Your task to perform on an android device: Show the shopping cart on target. Image 0: 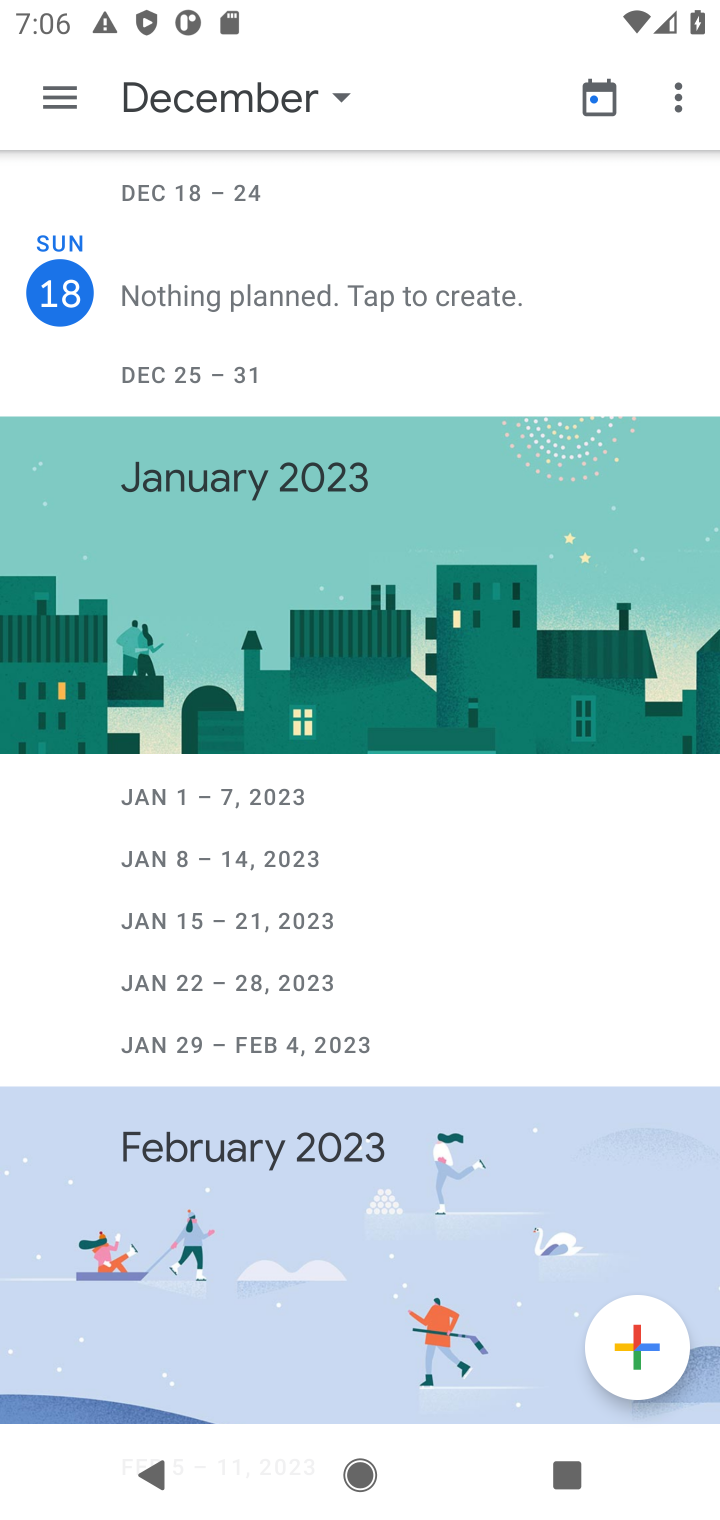
Step 0: press home button
Your task to perform on an android device: Show the shopping cart on target. Image 1: 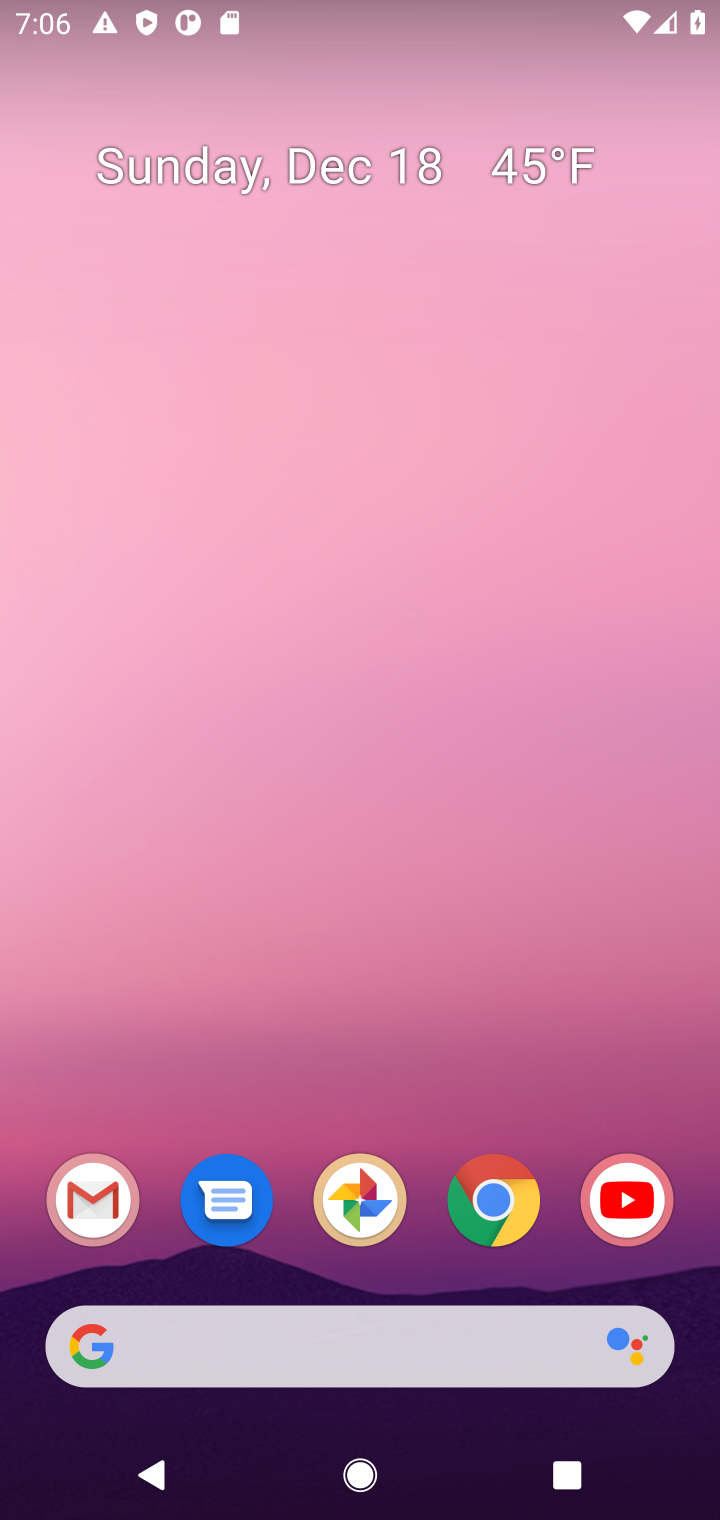
Step 1: click (496, 1217)
Your task to perform on an android device: Show the shopping cart on target. Image 2: 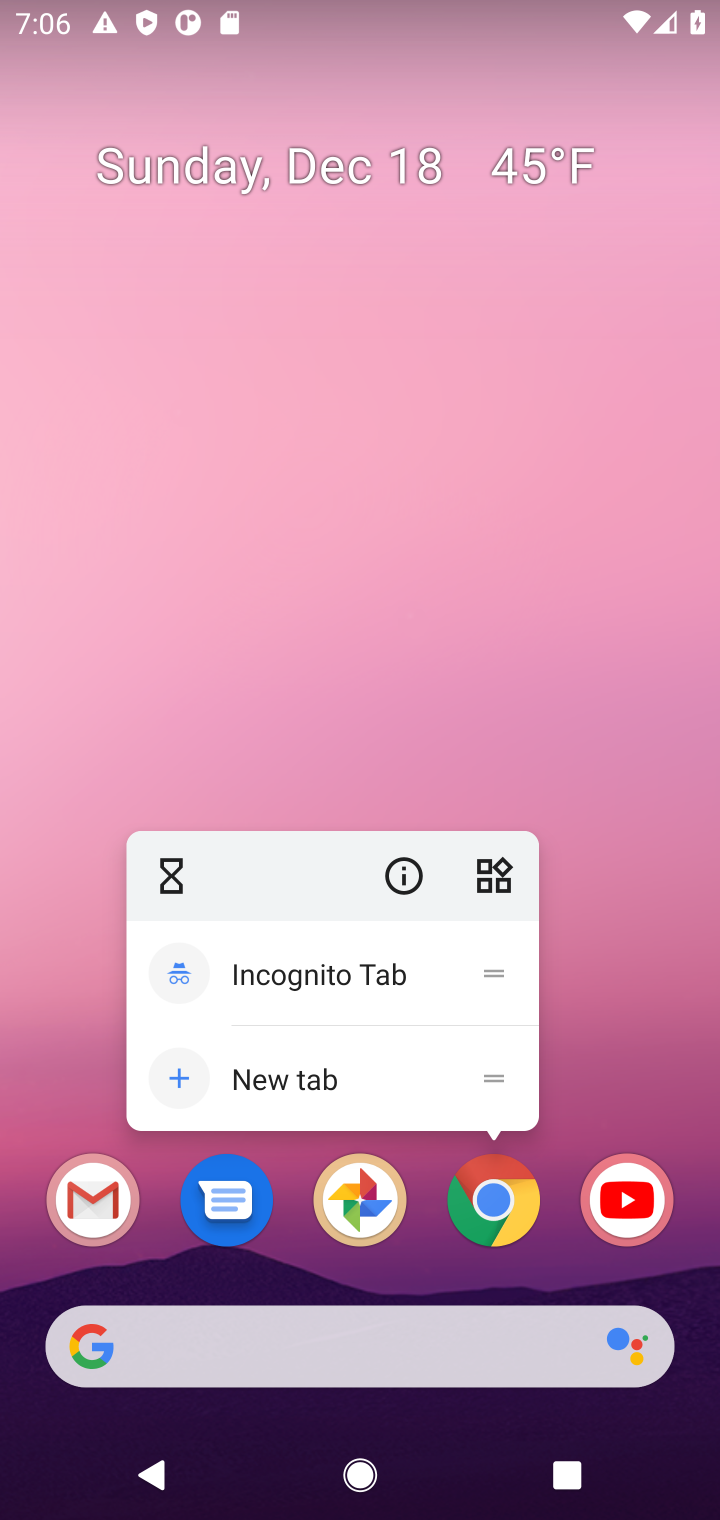
Step 2: click (498, 1217)
Your task to perform on an android device: Show the shopping cart on target. Image 3: 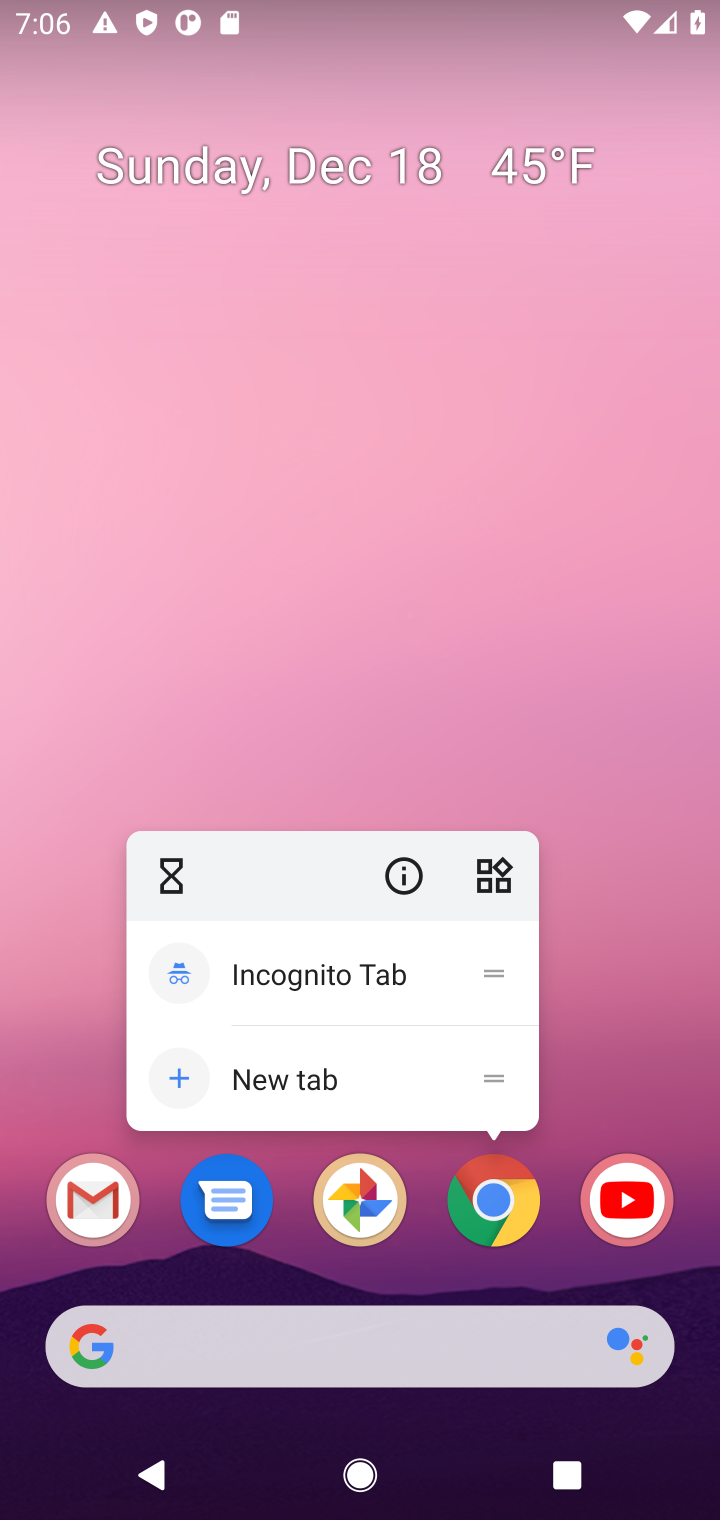
Step 3: click (506, 1199)
Your task to perform on an android device: Show the shopping cart on target. Image 4: 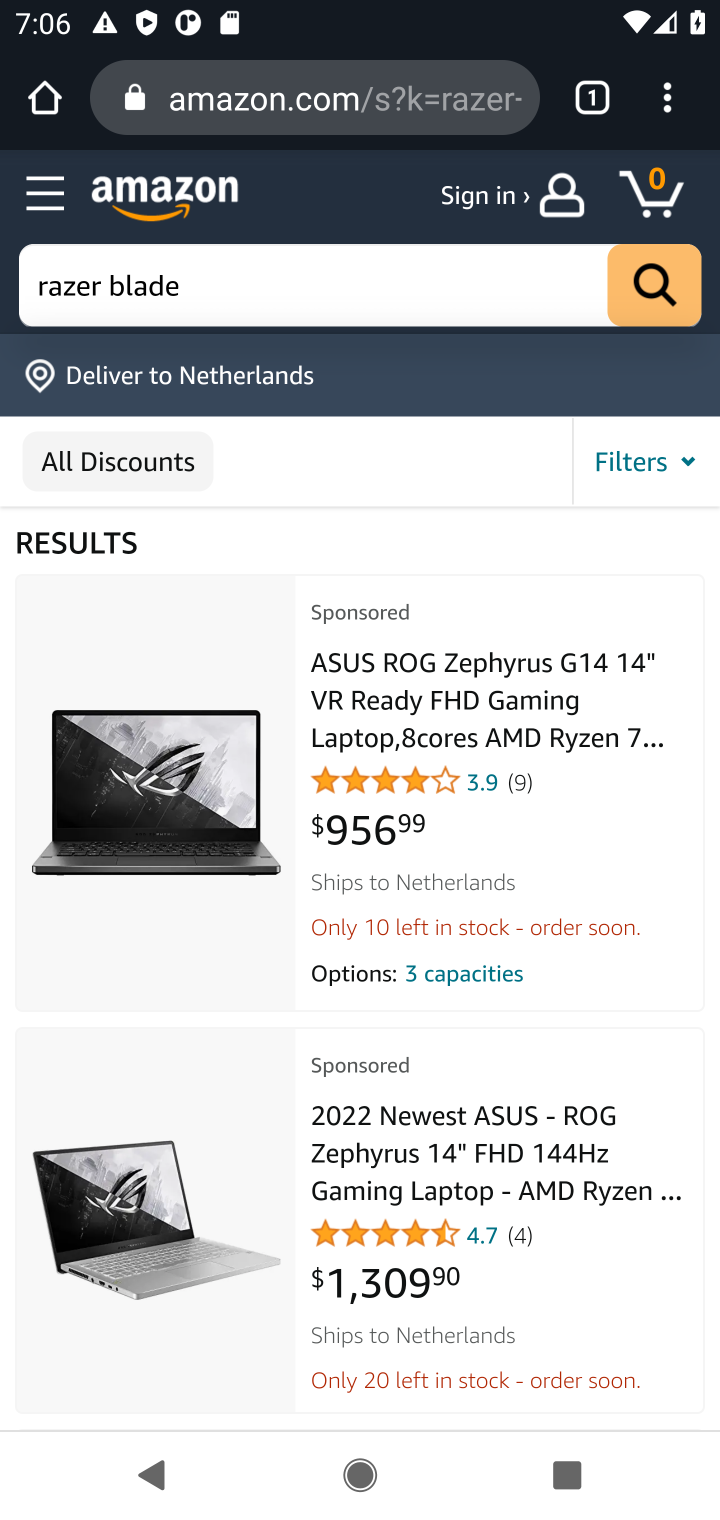
Step 4: click (253, 106)
Your task to perform on an android device: Show the shopping cart on target. Image 5: 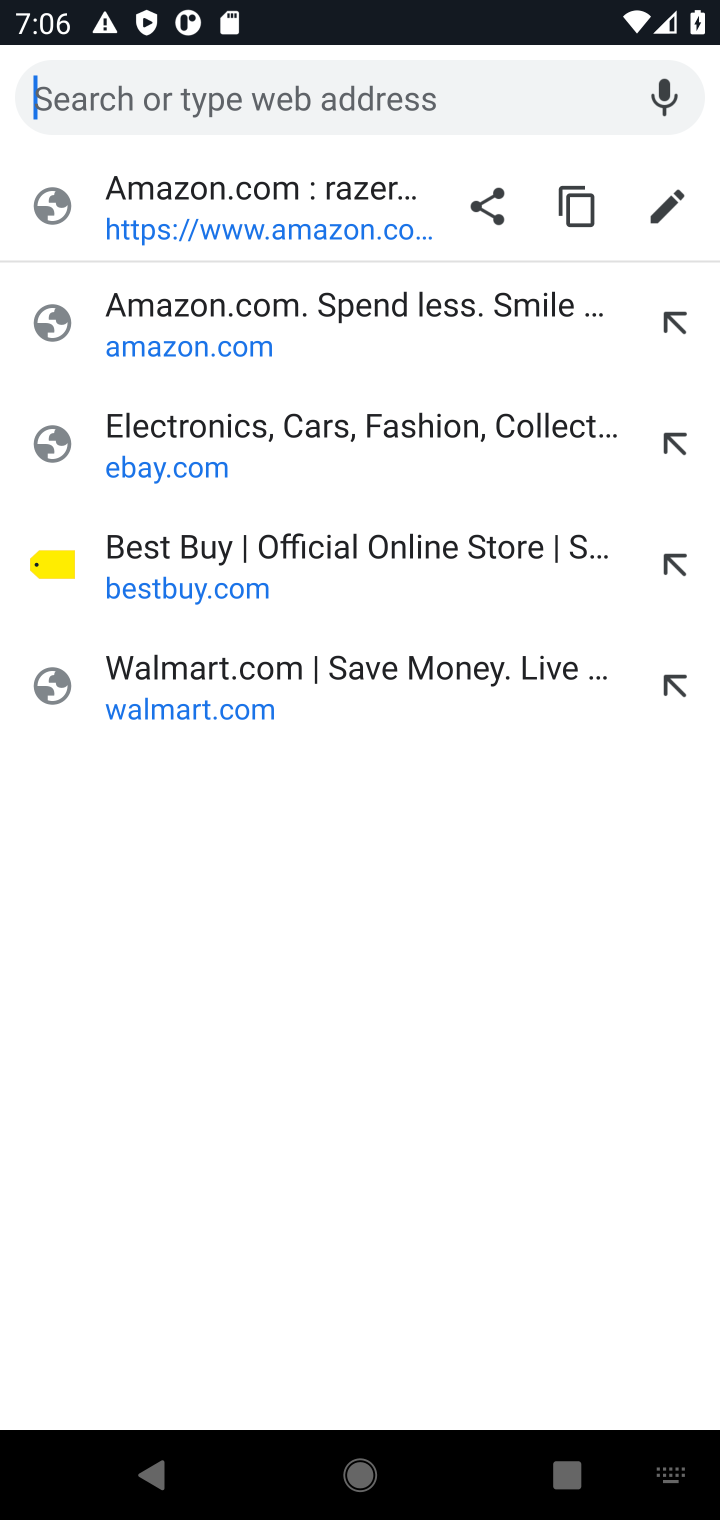
Step 5: type "target.com"
Your task to perform on an android device: Show the shopping cart on target. Image 6: 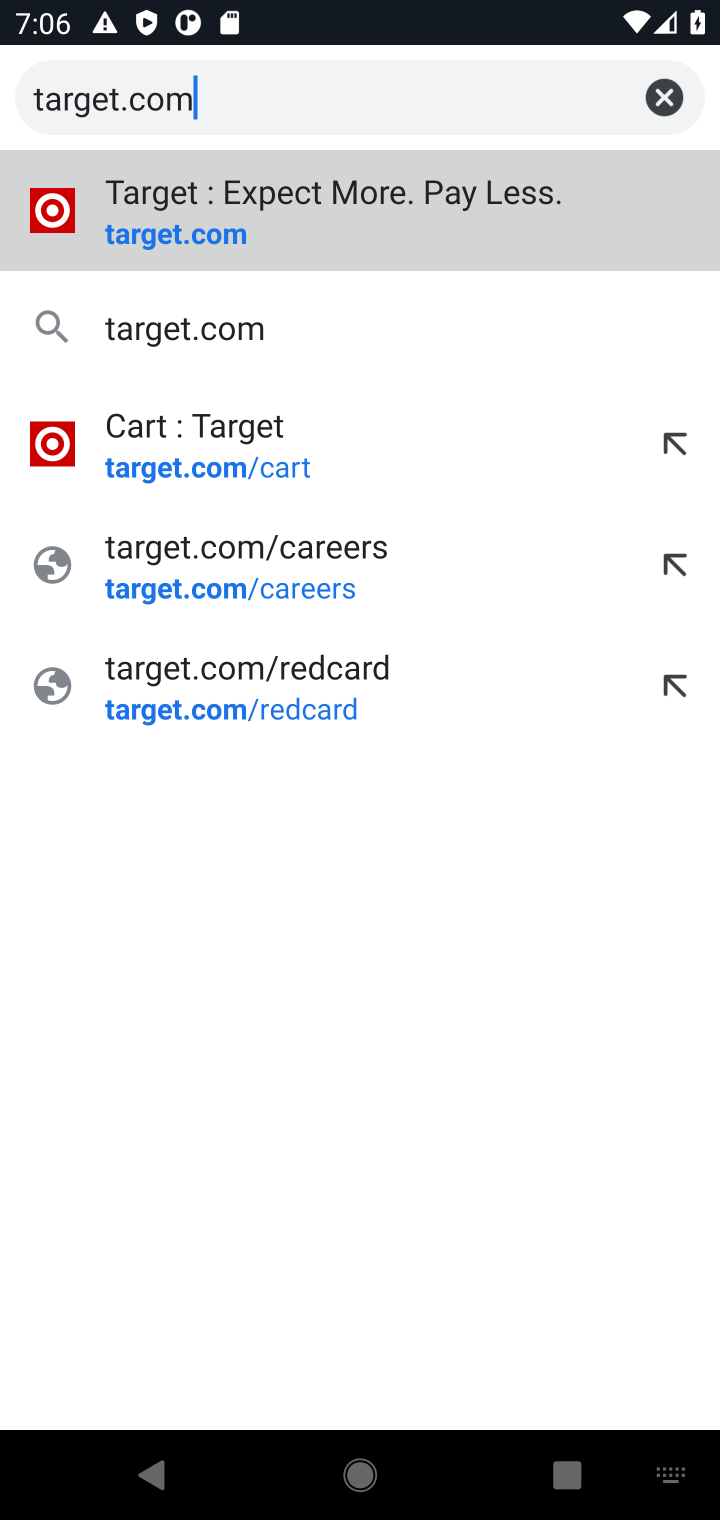
Step 6: click (169, 222)
Your task to perform on an android device: Show the shopping cart on target. Image 7: 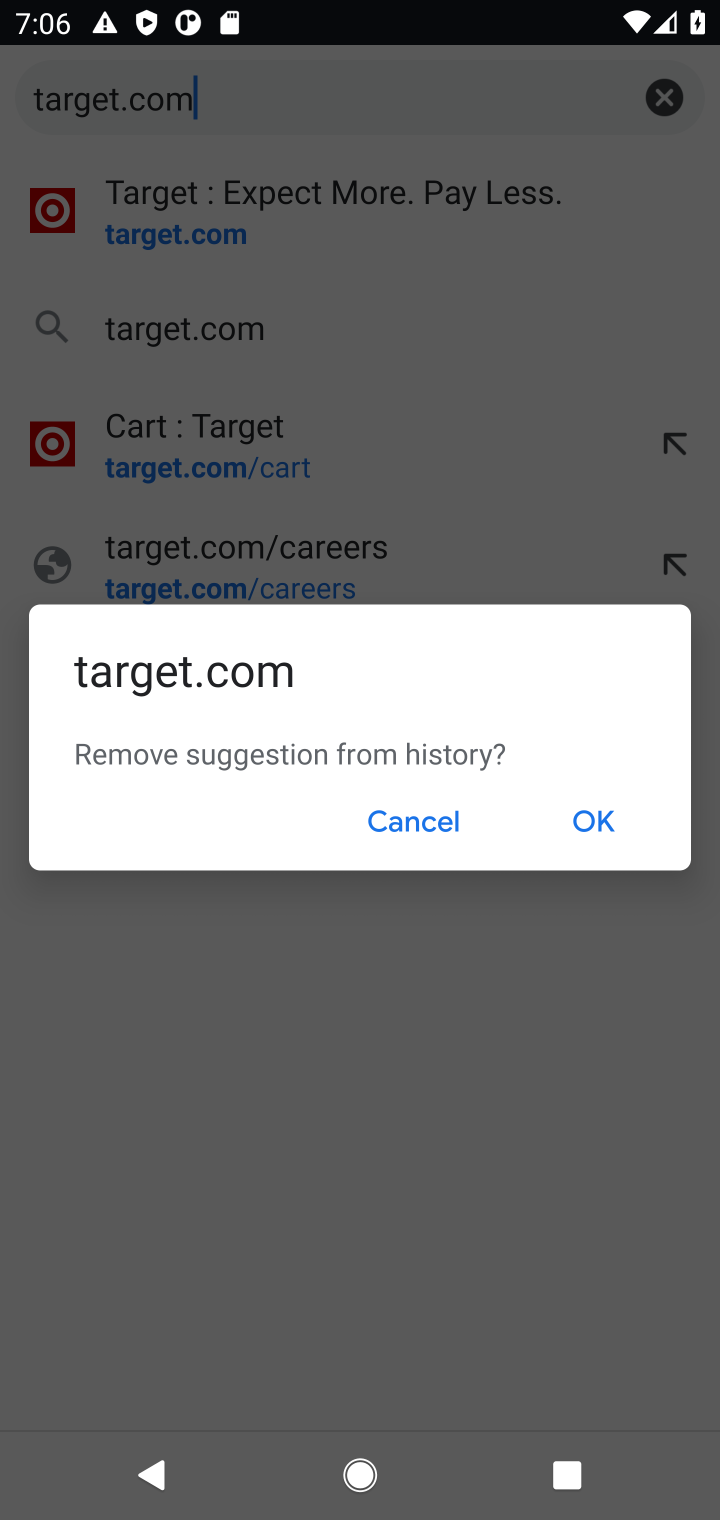
Step 7: click (158, 236)
Your task to perform on an android device: Show the shopping cart on target. Image 8: 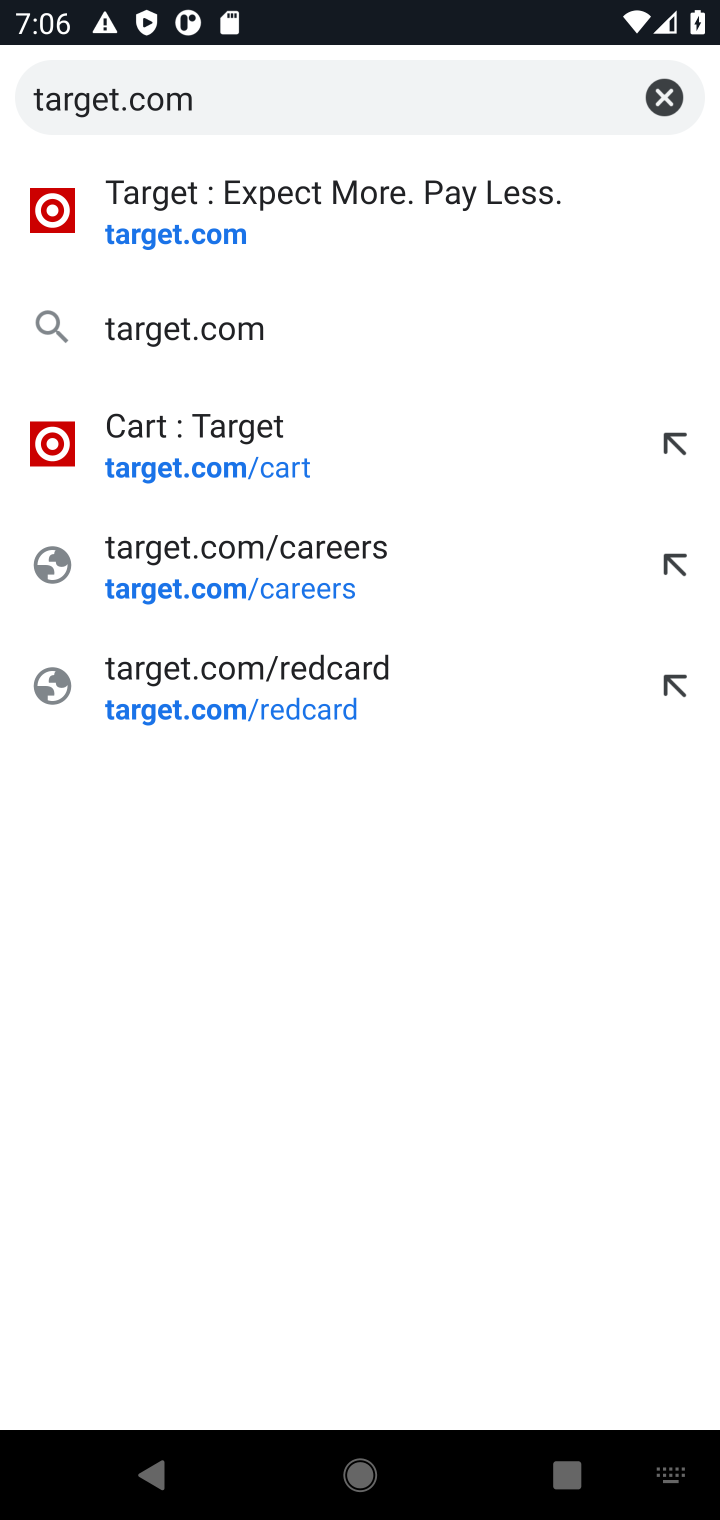
Step 8: click (154, 236)
Your task to perform on an android device: Show the shopping cart on target. Image 9: 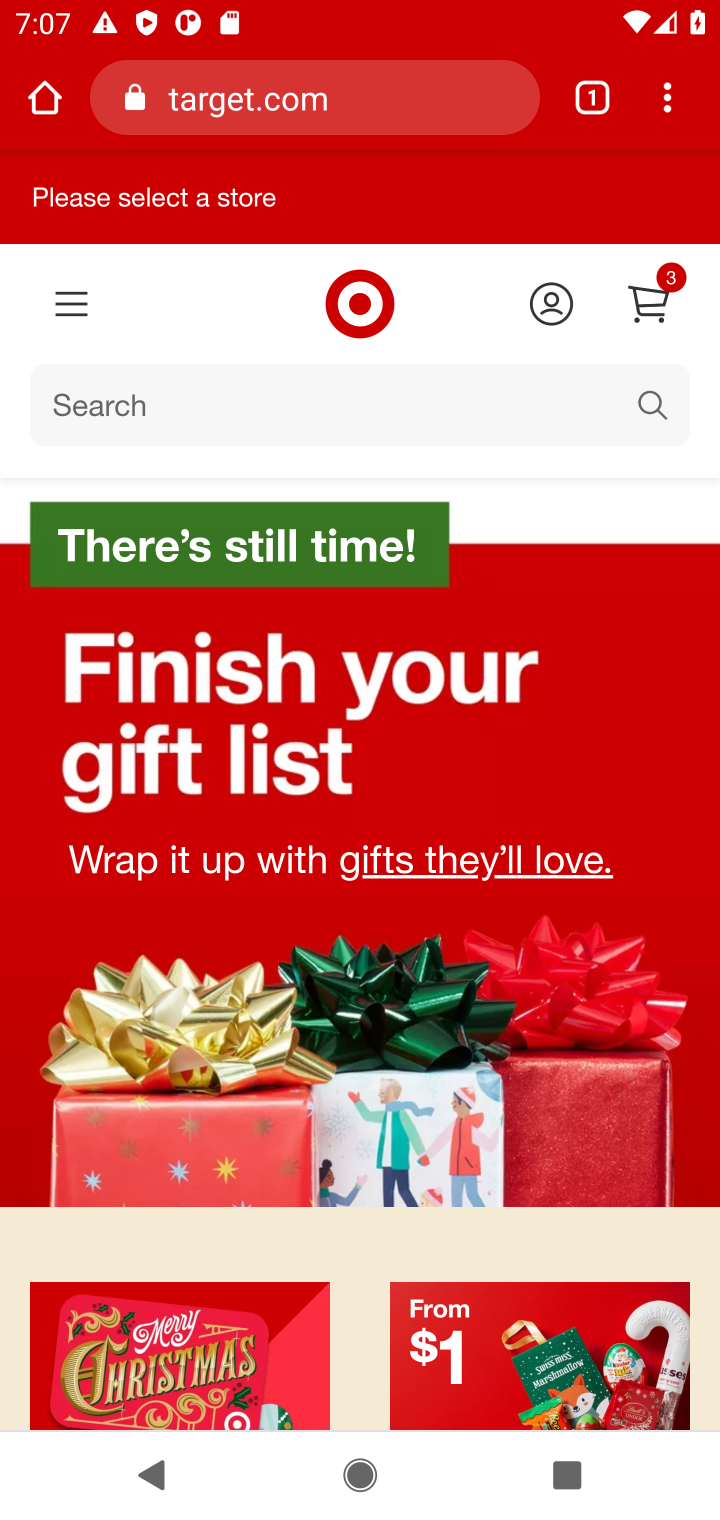
Step 9: click (640, 320)
Your task to perform on an android device: Show the shopping cart on target. Image 10: 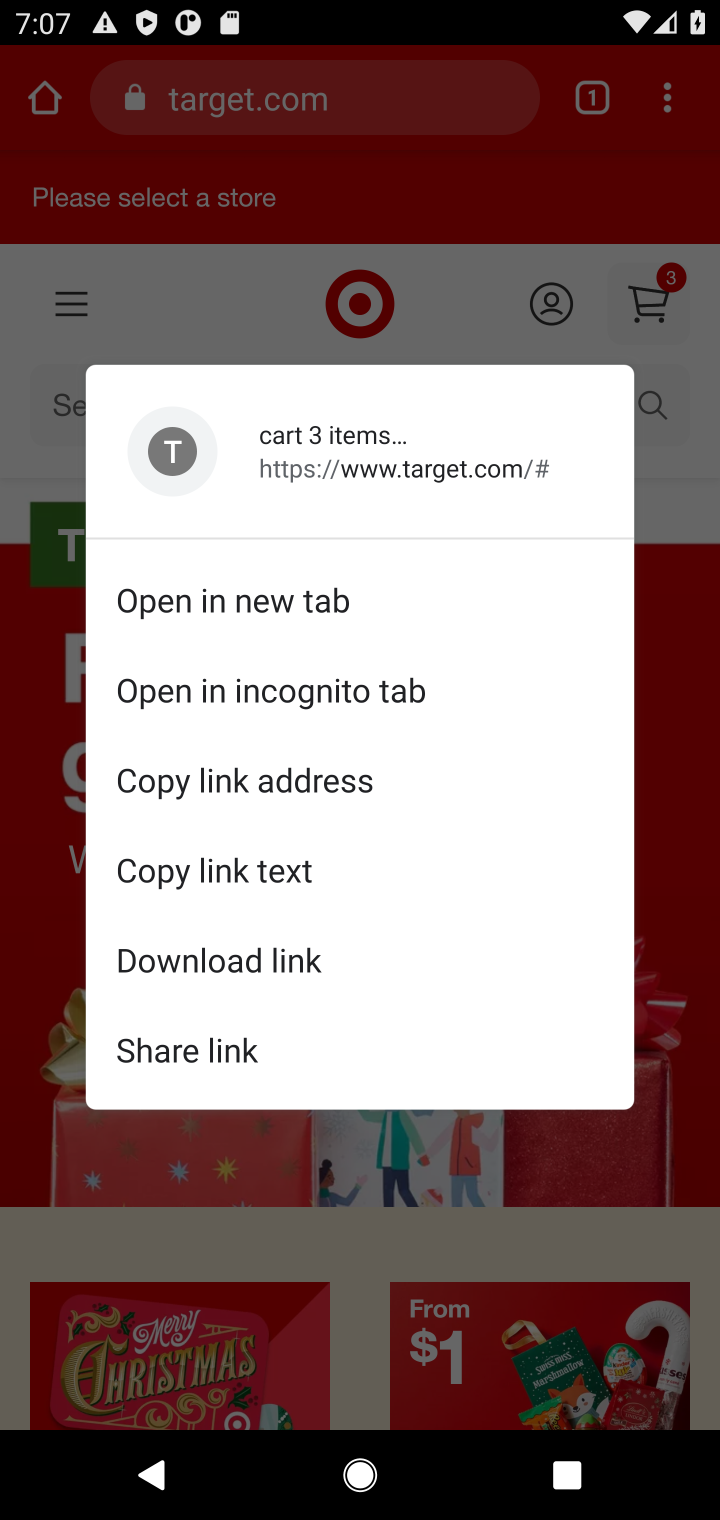
Step 10: click (640, 320)
Your task to perform on an android device: Show the shopping cart on target. Image 11: 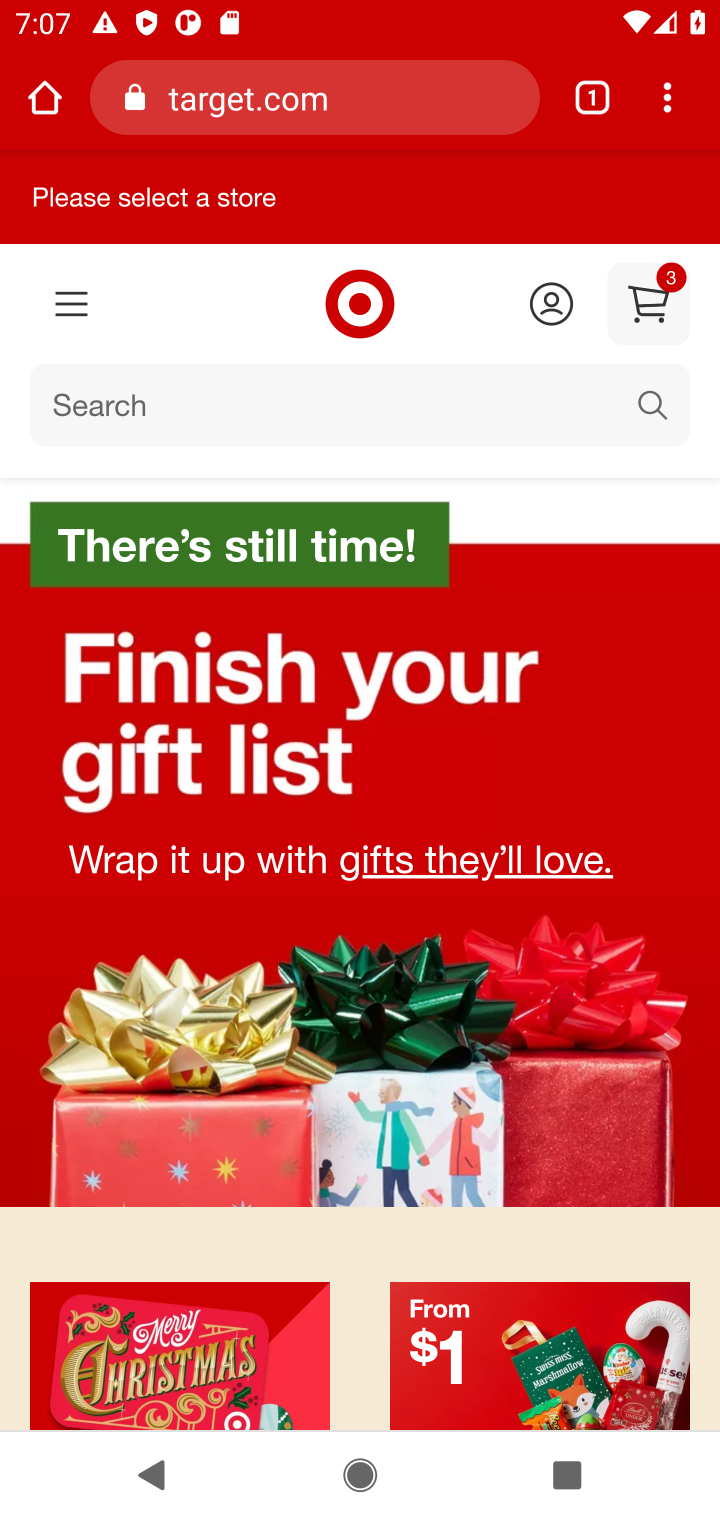
Step 11: click (646, 295)
Your task to perform on an android device: Show the shopping cart on target. Image 12: 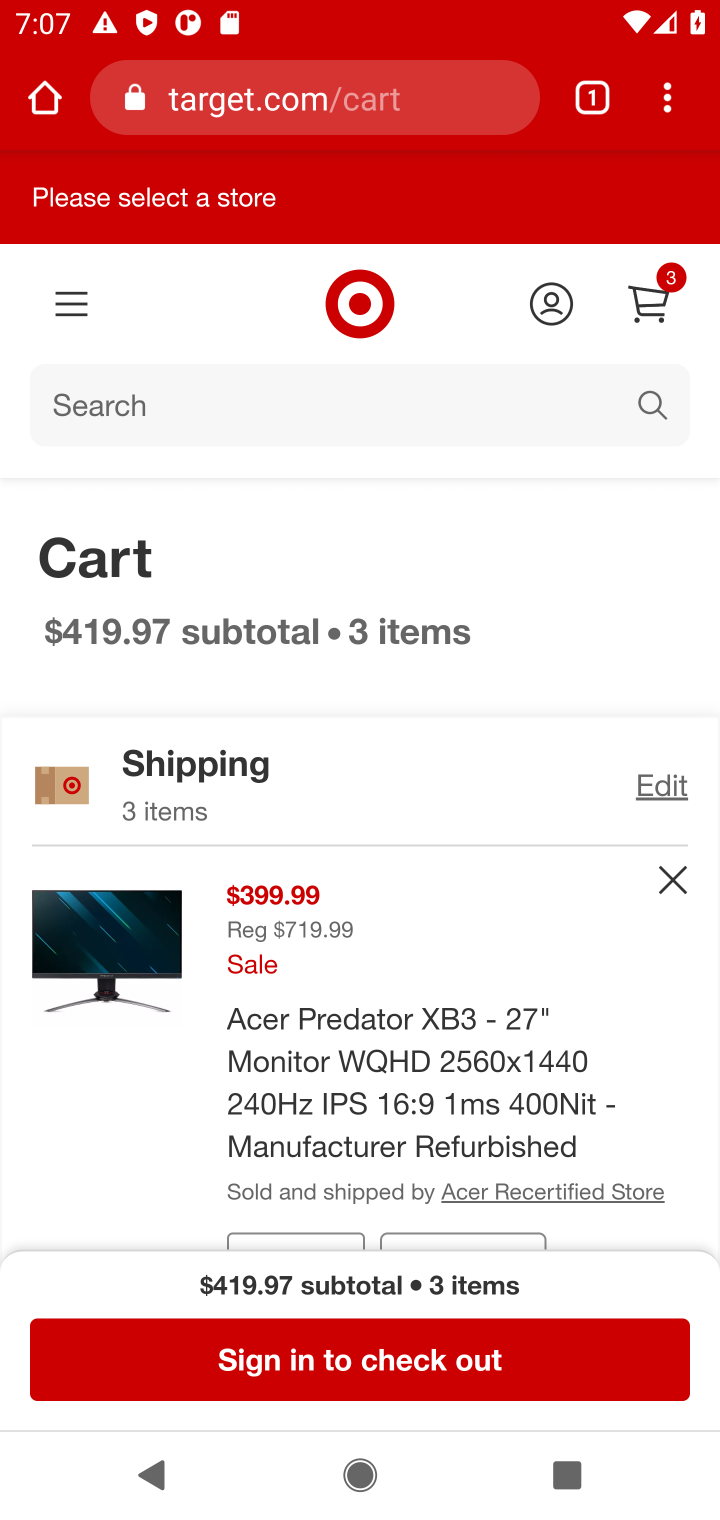
Step 12: task complete